Your task to perform on an android device: Show the shopping cart on costco. Search for jbl flip 4 on costco, select the first entry, and add it to the cart. Image 0: 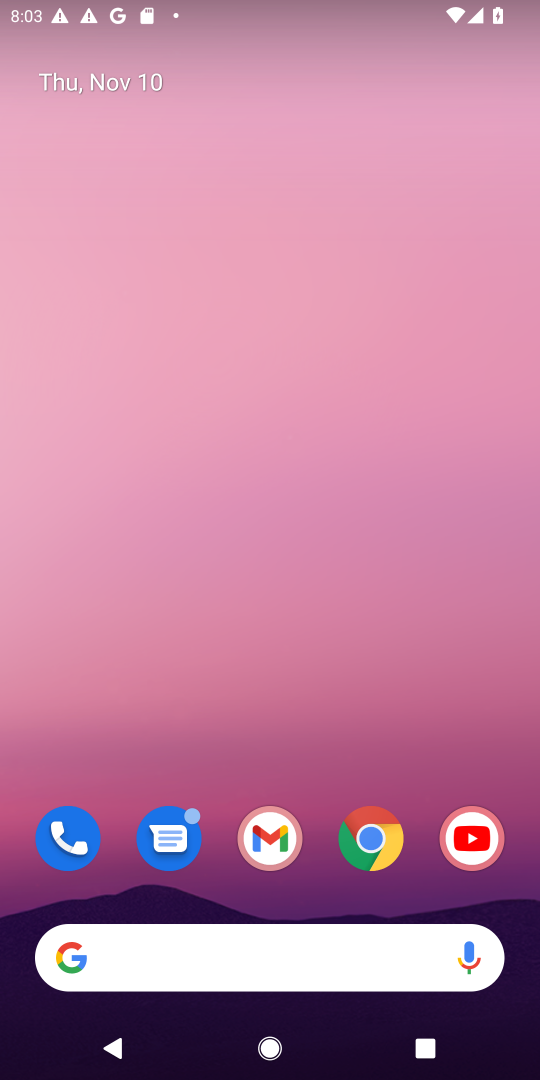
Step 0: drag from (321, 912) to (264, 47)
Your task to perform on an android device: Show the shopping cart on costco. Search for jbl flip 4 on costco, select the first entry, and add it to the cart. Image 1: 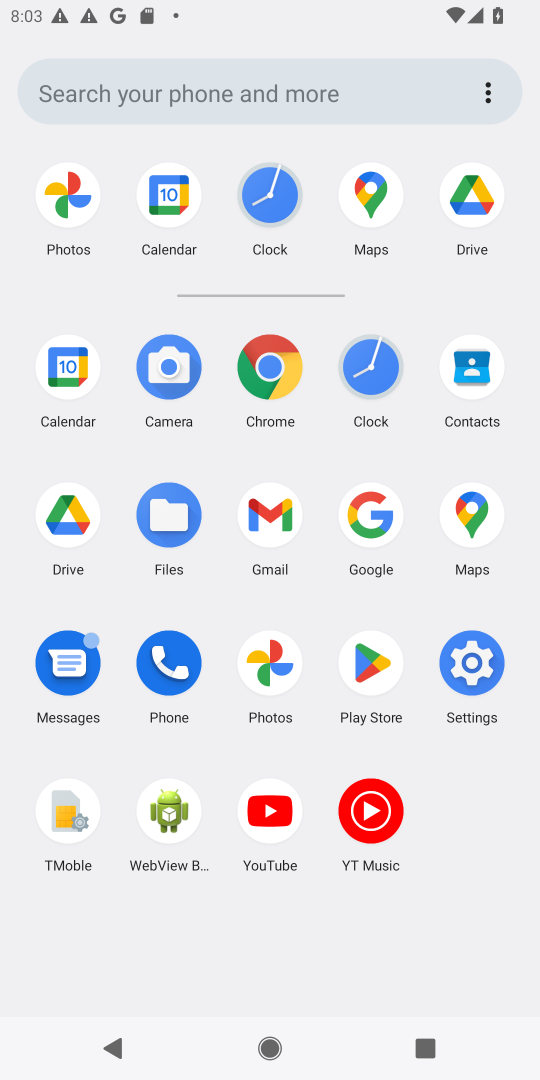
Step 1: click (261, 379)
Your task to perform on an android device: Show the shopping cart on costco. Search for jbl flip 4 on costco, select the first entry, and add it to the cart. Image 2: 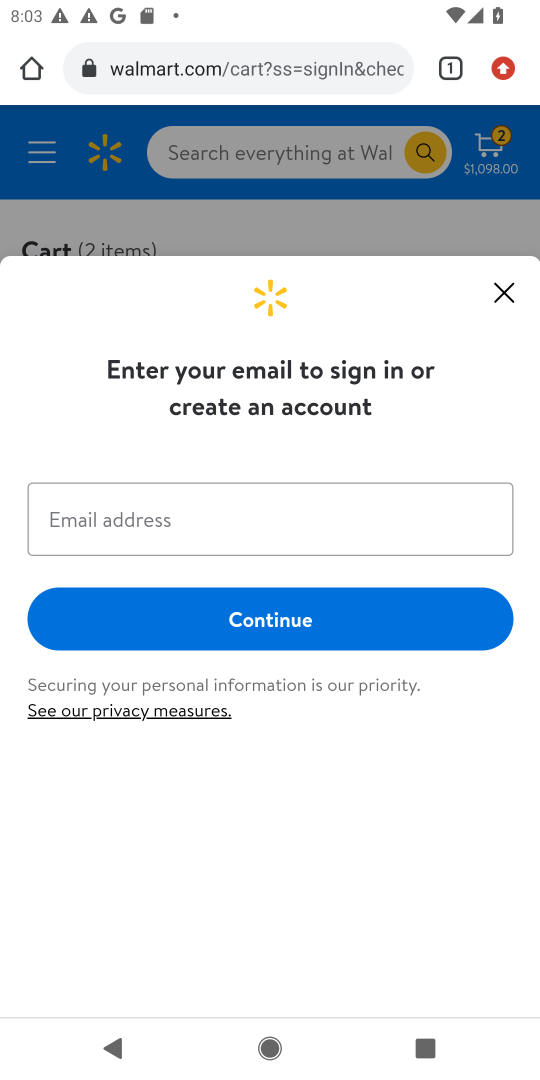
Step 2: click (320, 71)
Your task to perform on an android device: Show the shopping cart on costco. Search for jbl flip 4 on costco, select the first entry, and add it to the cart. Image 3: 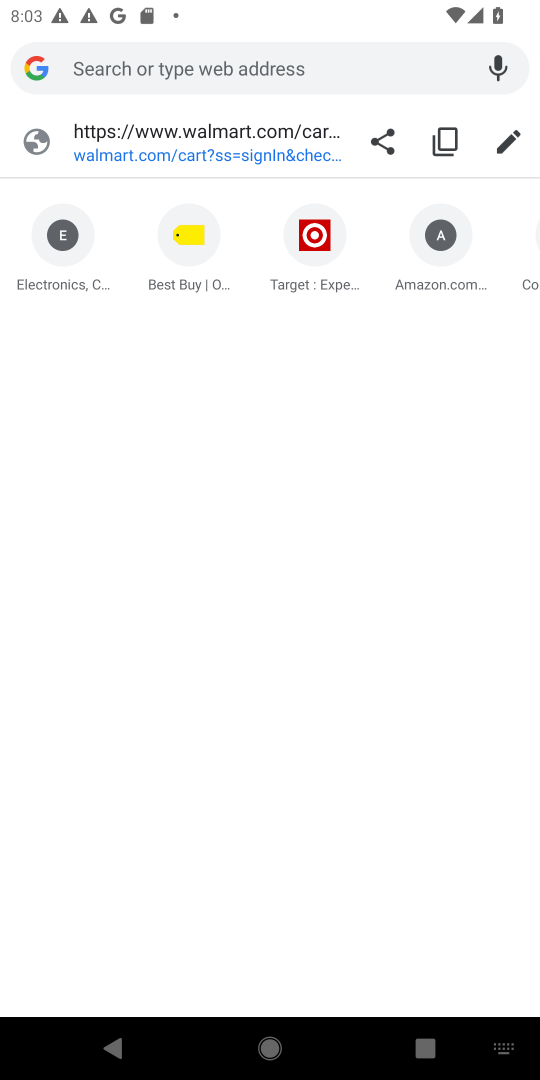
Step 3: type "costco.com"
Your task to perform on an android device: Show the shopping cart on costco. Search for jbl flip 4 on costco, select the first entry, and add it to the cart. Image 4: 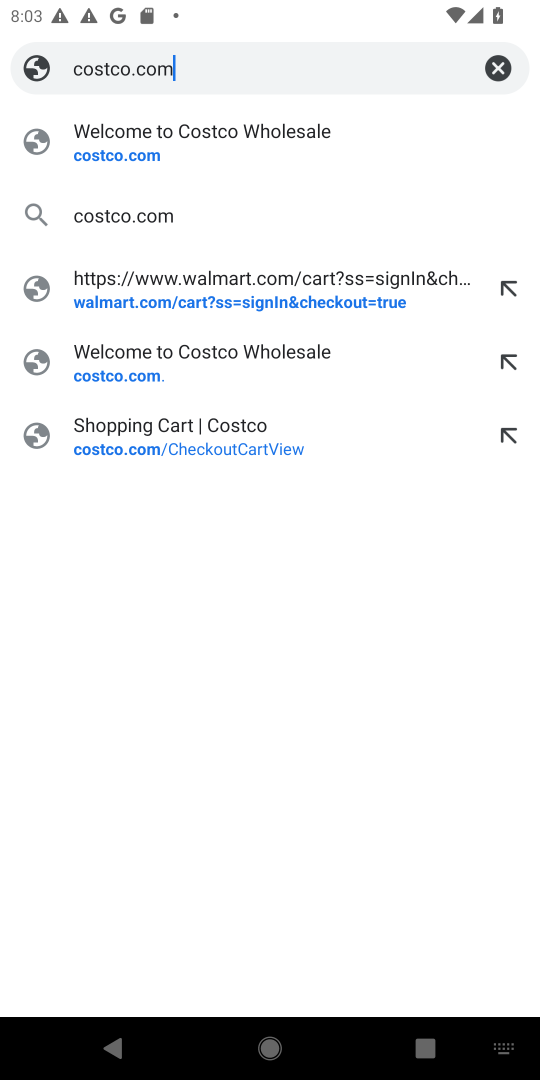
Step 4: press enter
Your task to perform on an android device: Show the shopping cart on costco. Search for jbl flip 4 on costco, select the first entry, and add it to the cart. Image 5: 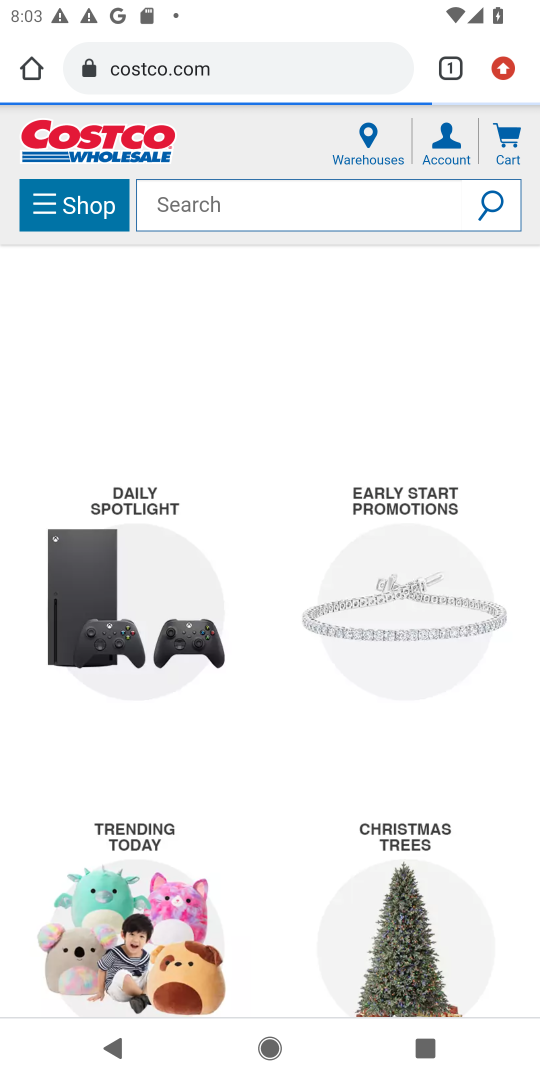
Step 5: press enter
Your task to perform on an android device: Show the shopping cart on costco. Search for jbl flip 4 on costco, select the first entry, and add it to the cart. Image 6: 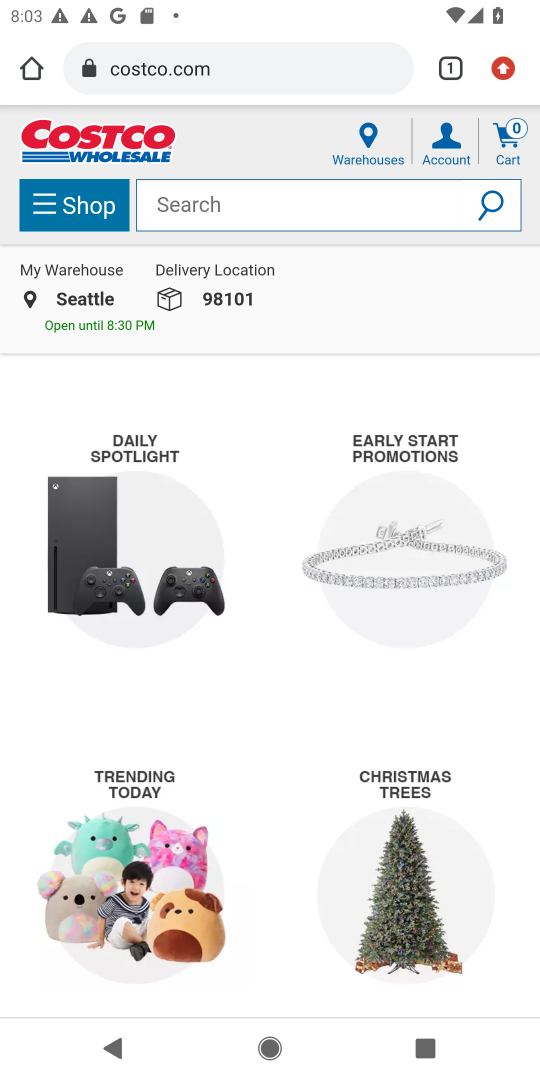
Step 6: click (521, 111)
Your task to perform on an android device: Show the shopping cart on costco. Search for jbl flip 4 on costco, select the first entry, and add it to the cart. Image 7: 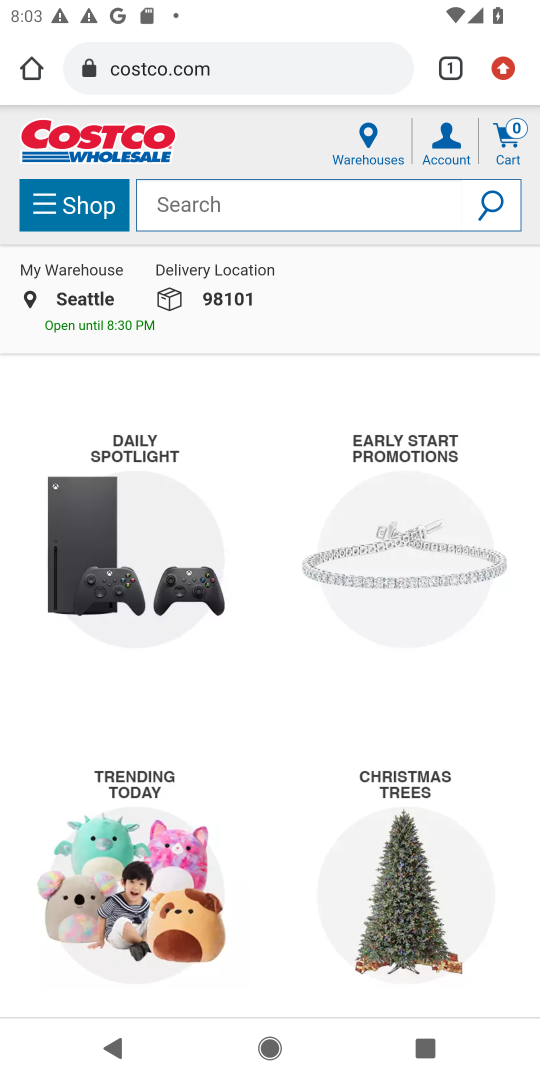
Step 7: click (522, 132)
Your task to perform on an android device: Show the shopping cart on costco. Search for jbl flip 4 on costco, select the first entry, and add it to the cart. Image 8: 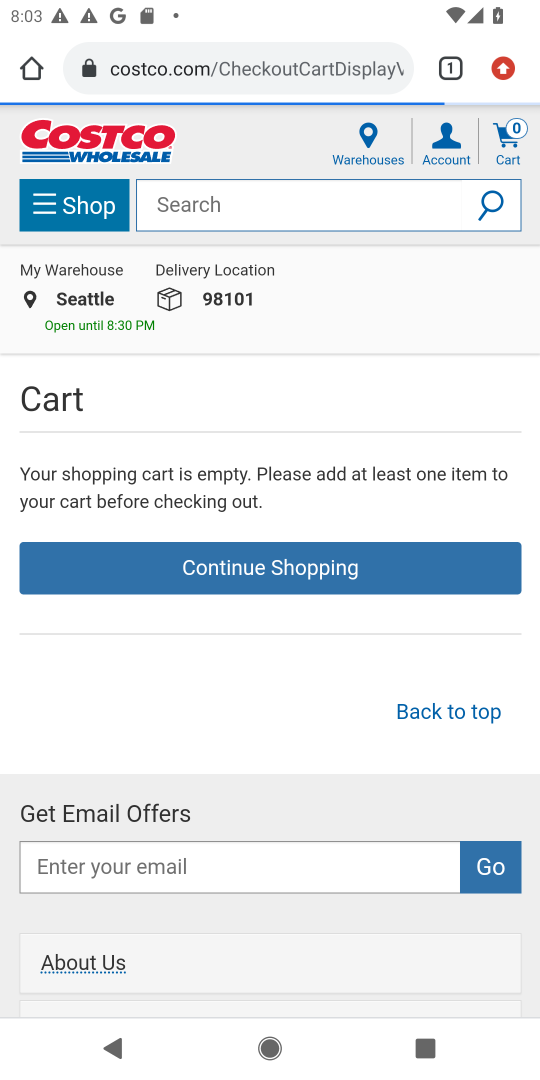
Step 8: click (223, 209)
Your task to perform on an android device: Show the shopping cart on costco. Search for jbl flip 4 on costco, select the first entry, and add it to the cart. Image 9: 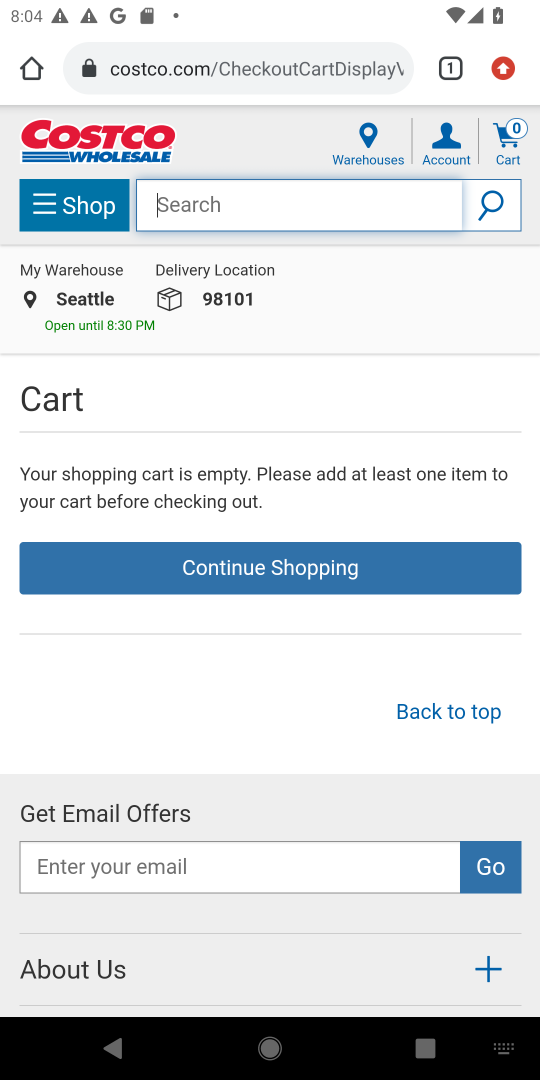
Step 9: type "jbl flip 4"
Your task to perform on an android device: Show the shopping cart on costco. Search for jbl flip 4 on costco, select the first entry, and add it to the cart. Image 10: 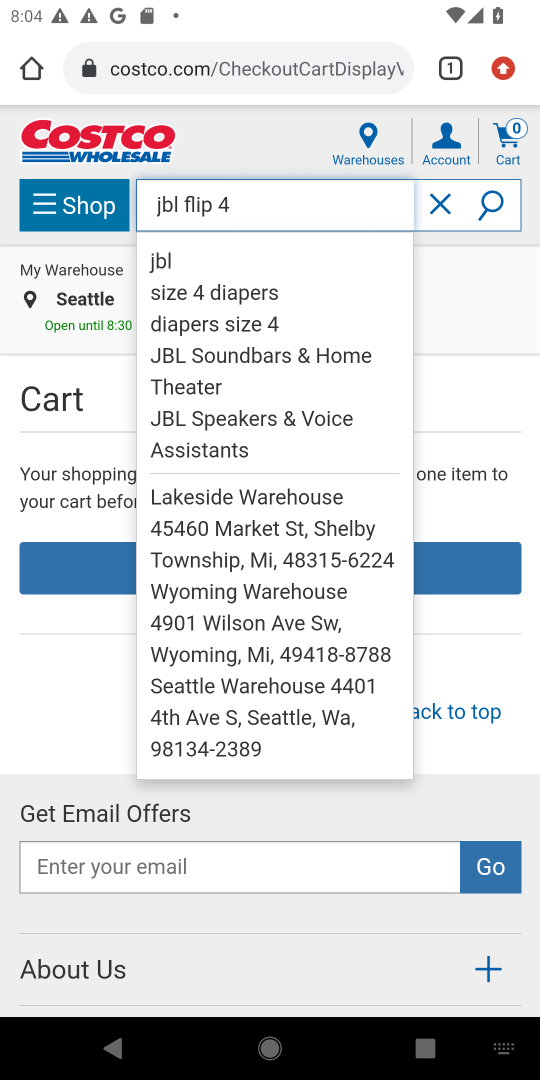
Step 10: press enter
Your task to perform on an android device: Show the shopping cart on costco. Search for jbl flip 4 on costco, select the first entry, and add it to the cart. Image 11: 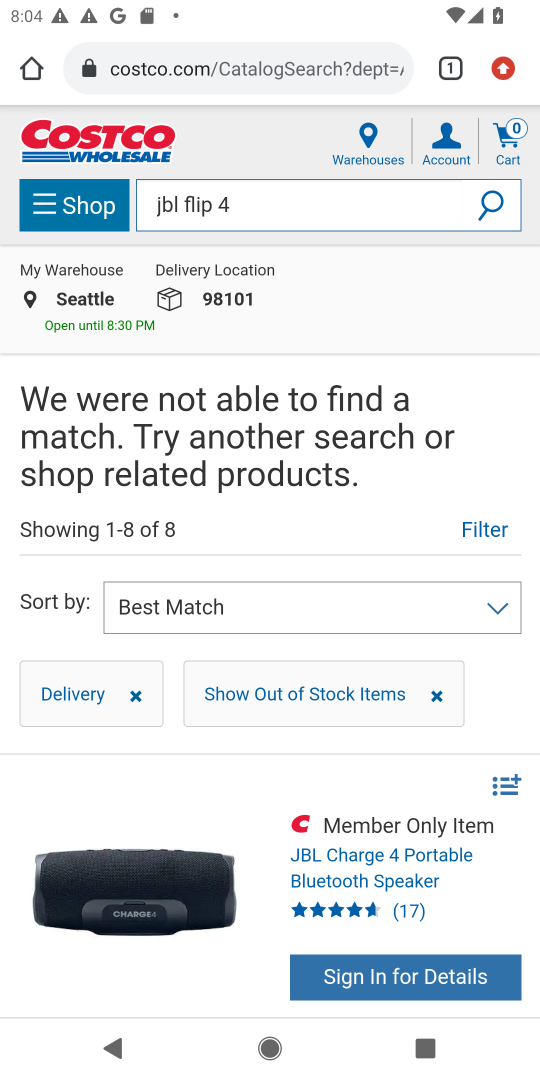
Step 11: task complete